Your task to perform on an android device: What's the weather going to be this weekend? Image 0: 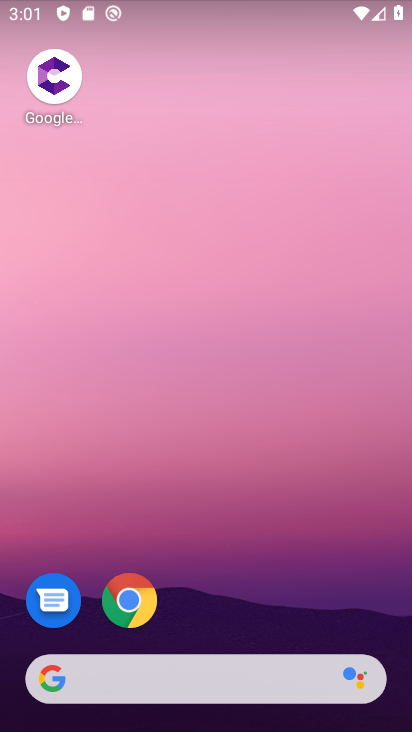
Step 0: click (136, 595)
Your task to perform on an android device: What's the weather going to be this weekend? Image 1: 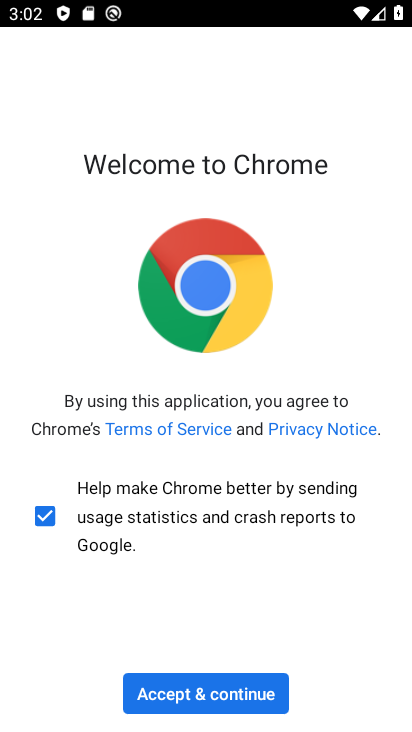
Step 1: click (233, 688)
Your task to perform on an android device: What's the weather going to be this weekend? Image 2: 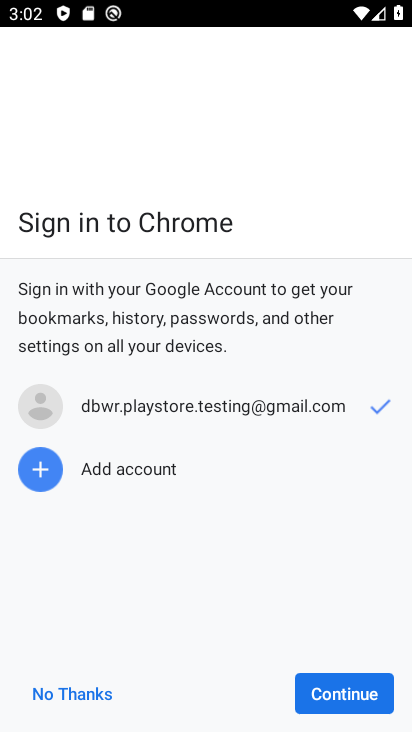
Step 2: click (335, 690)
Your task to perform on an android device: What's the weather going to be this weekend? Image 3: 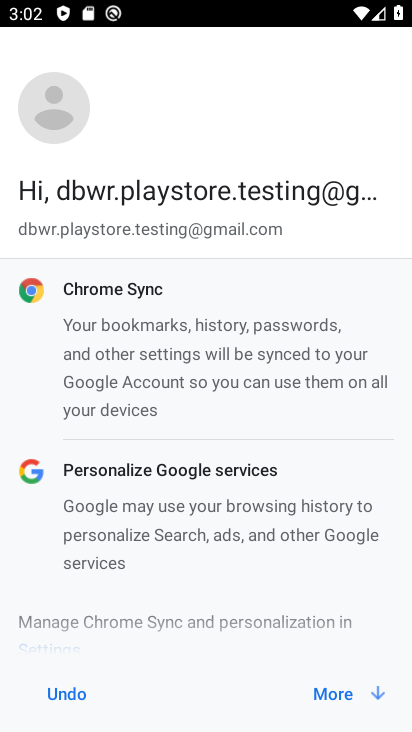
Step 3: click (336, 693)
Your task to perform on an android device: What's the weather going to be this weekend? Image 4: 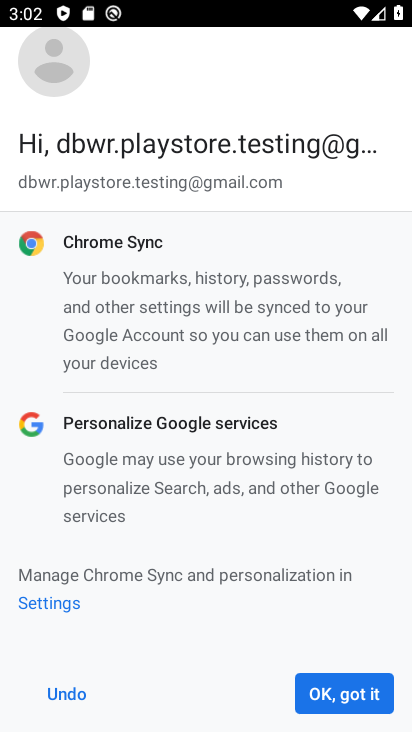
Step 4: click (336, 693)
Your task to perform on an android device: What's the weather going to be this weekend? Image 5: 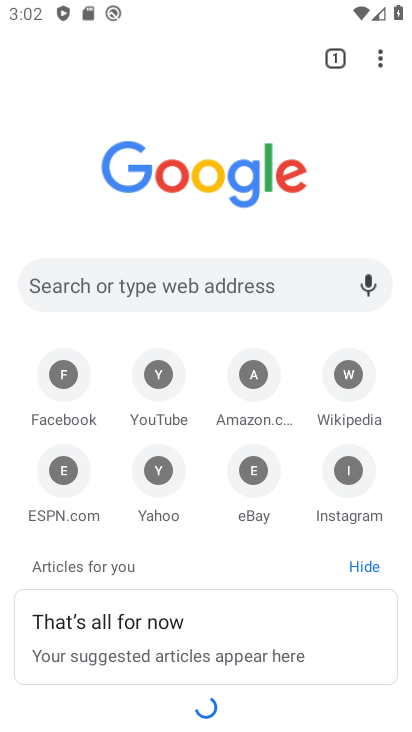
Step 5: click (233, 282)
Your task to perform on an android device: What's the weather going to be this weekend? Image 6: 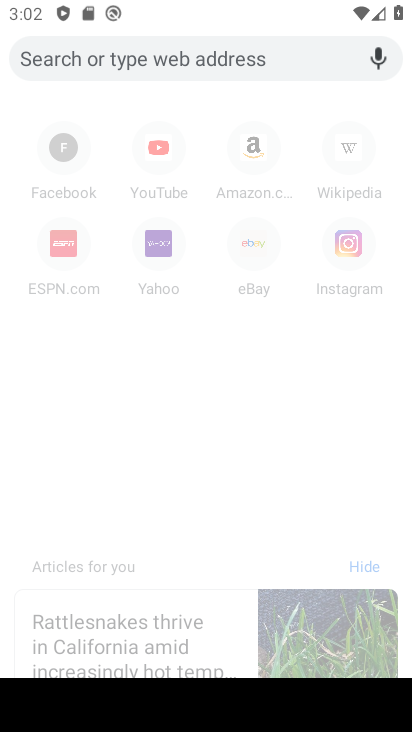
Step 6: type "What's the weather going to be this weekend?"
Your task to perform on an android device: What's the weather going to be this weekend? Image 7: 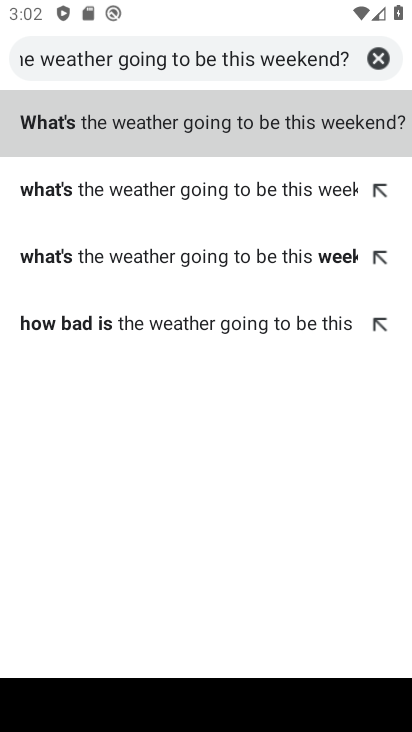
Step 7: click (184, 118)
Your task to perform on an android device: What's the weather going to be this weekend? Image 8: 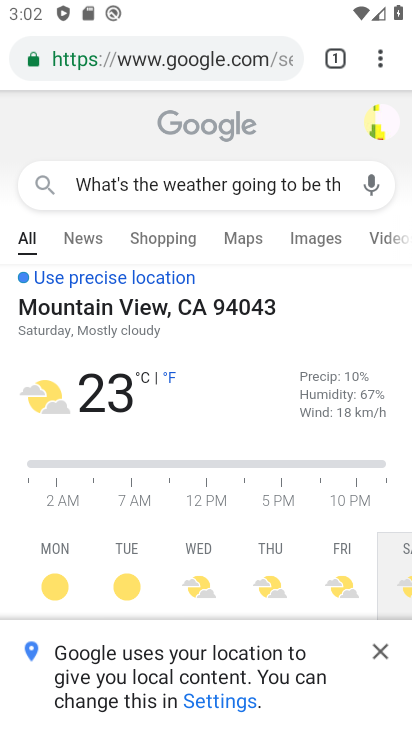
Step 8: click (380, 655)
Your task to perform on an android device: What's the weather going to be this weekend? Image 9: 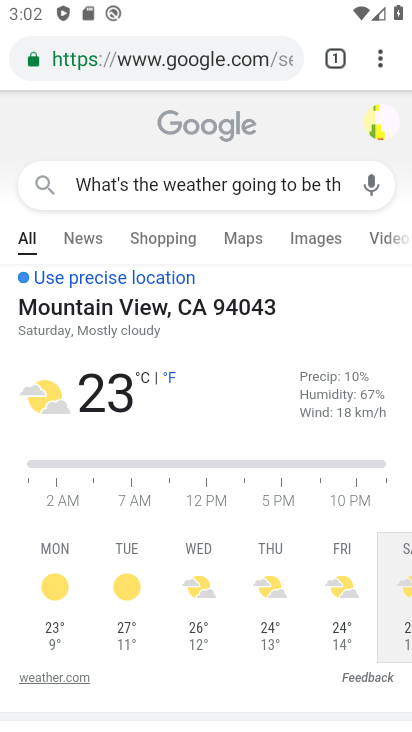
Step 9: task complete